Your task to perform on an android device: read, delete, or share a saved page in the chrome app Image 0: 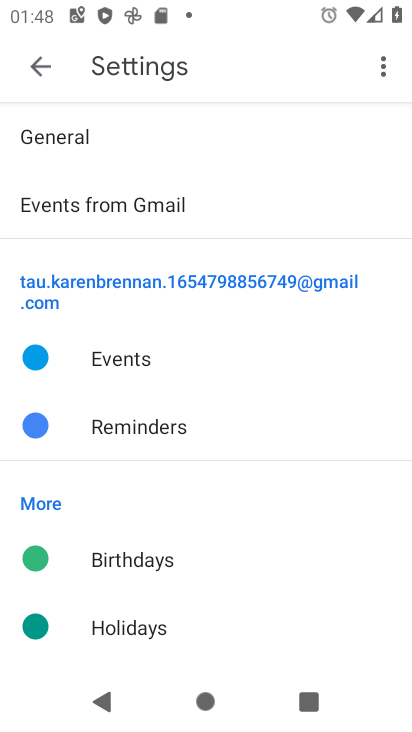
Step 0: press home button
Your task to perform on an android device: read, delete, or share a saved page in the chrome app Image 1: 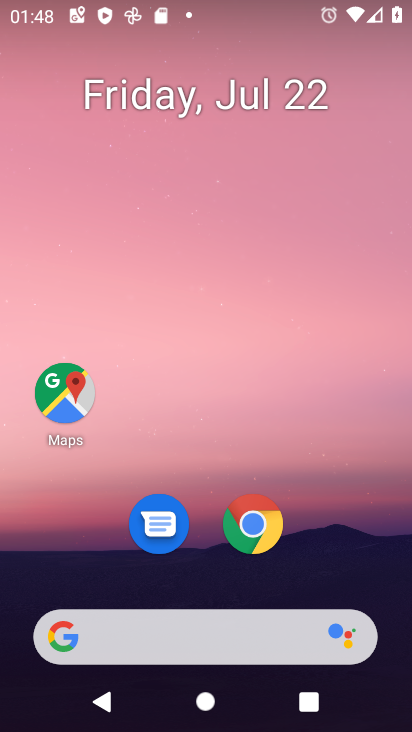
Step 1: click (257, 535)
Your task to perform on an android device: read, delete, or share a saved page in the chrome app Image 2: 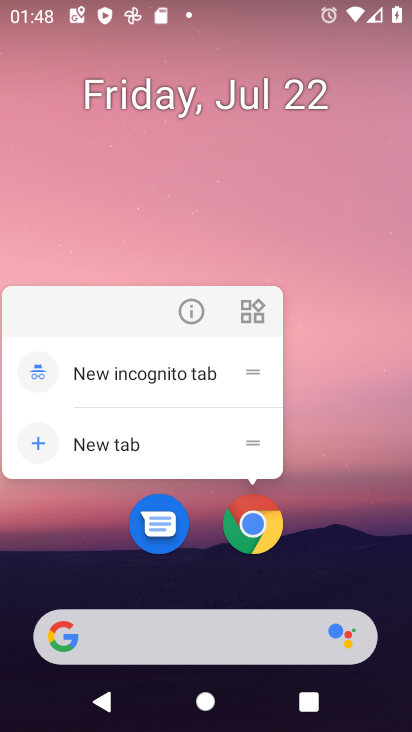
Step 2: click (246, 527)
Your task to perform on an android device: read, delete, or share a saved page in the chrome app Image 3: 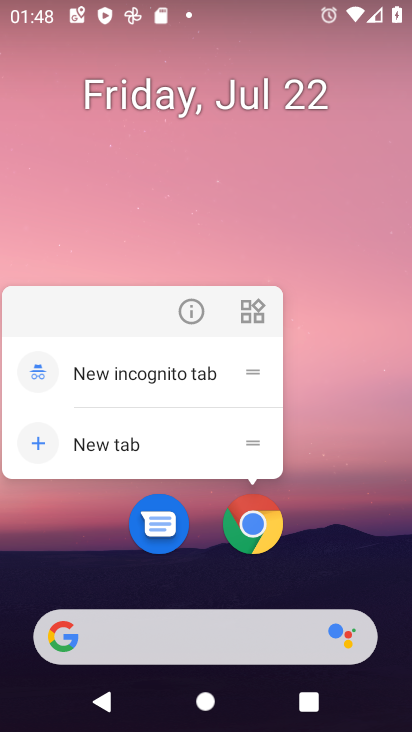
Step 3: click (256, 520)
Your task to perform on an android device: read, delete, or share a saved page in the chrome app Image 4: 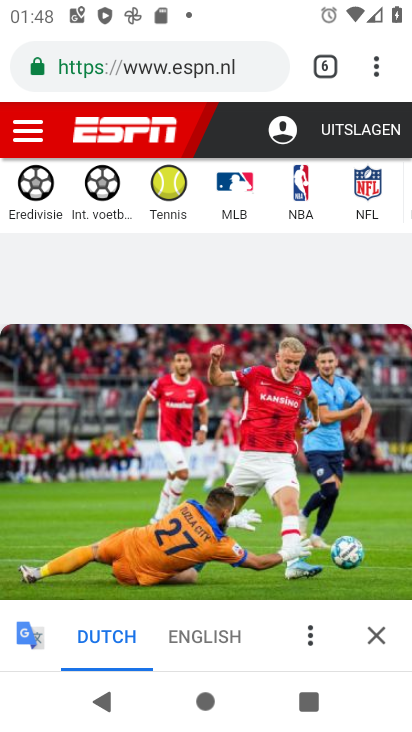
Step 4: drag from (375, 65) to (188, 433)
Your task to perform on an android device: read, delete, or share a saved page in the chrome app Image 5: 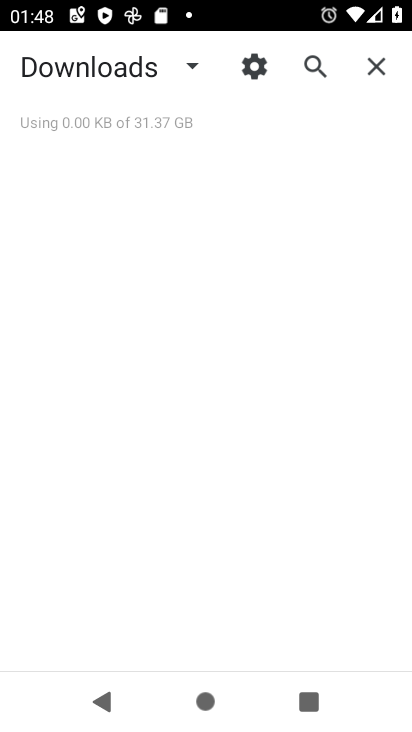
Step 5: click (180, 66)
Your task to perform on an android device: read, delete, or share a saved page in the chrome app Image 6: 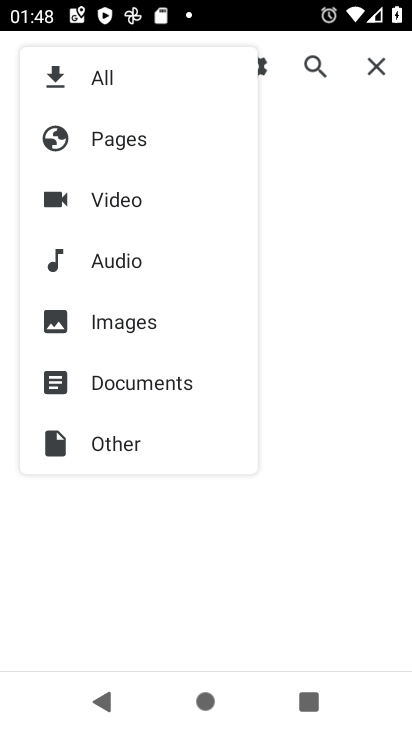
Step 6: click (120, 141)
Your task to perform on an android device: read, delete, or share a saved page in the chrome app Image 7: 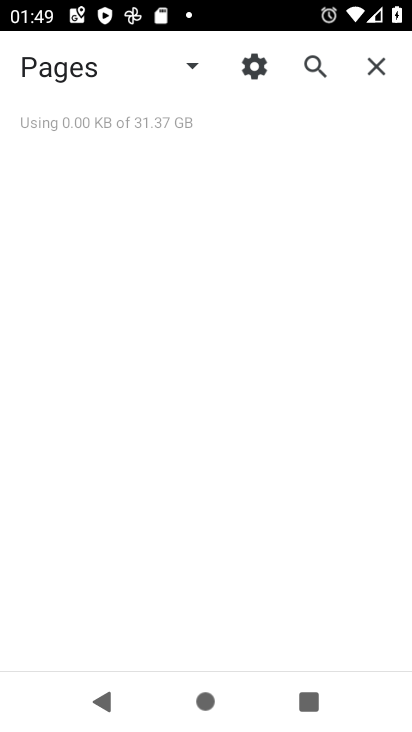
Step 7: task complete